Your task to perform on an android device: turn off translation in the chrome app Image 0: 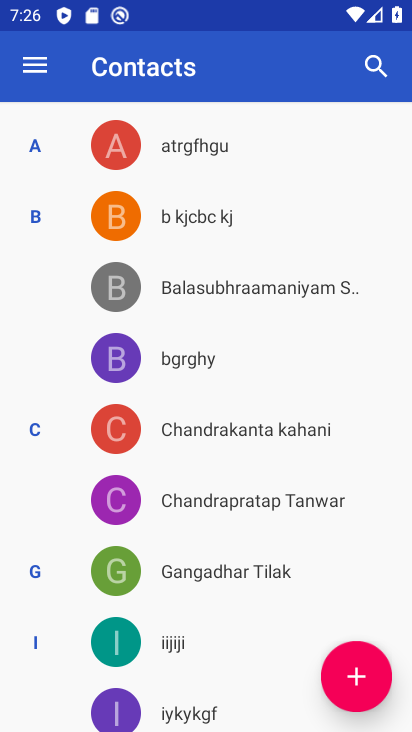
Step 0: press home button
Your task to perform on an android device: turn off translation in the chrome app Image 1: 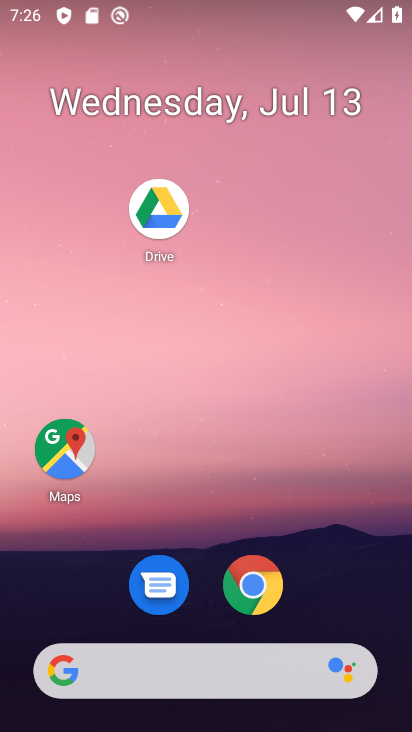
Step 1: click (266, 588)
Your task to perform on an android device: turn off translation in the chrome app Image 2: 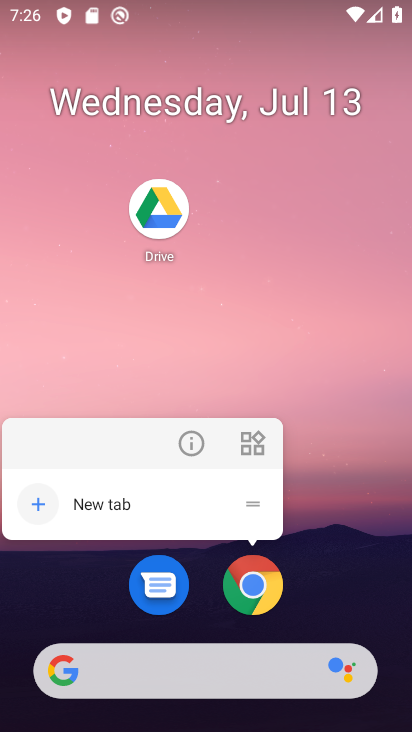
Step 2: click (246, 602)
Your task to perform on an android device: turn off translation in the chrome app Image 3: 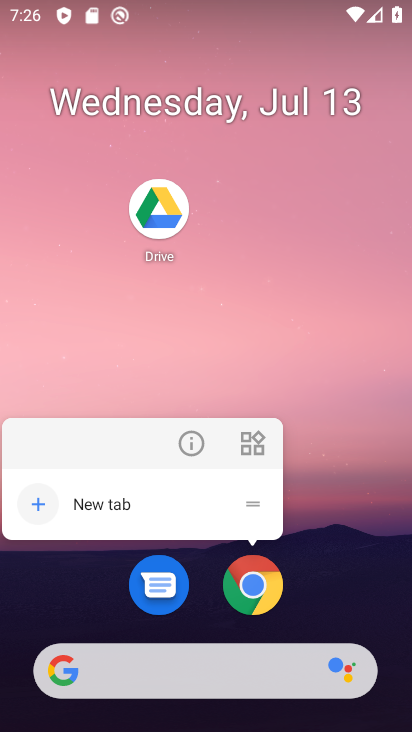
Step 3: click (254, 590)
Your task to perform on an android device: turn off translation in the chrome app Image 4: 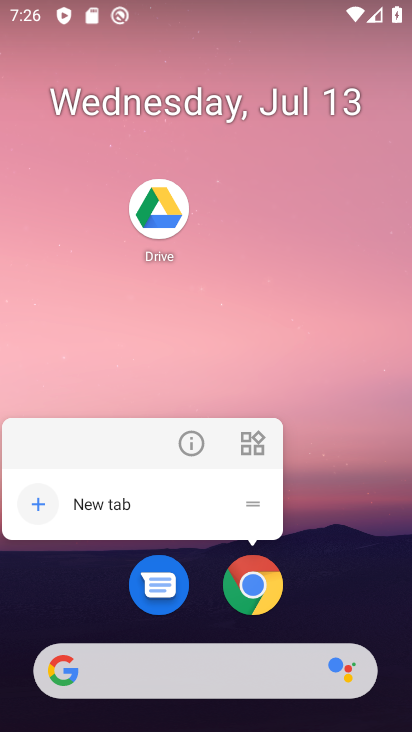
Step 4: click (254, 590)
Your task to perform on an android device: turn off translation in the chrome app Image 5: 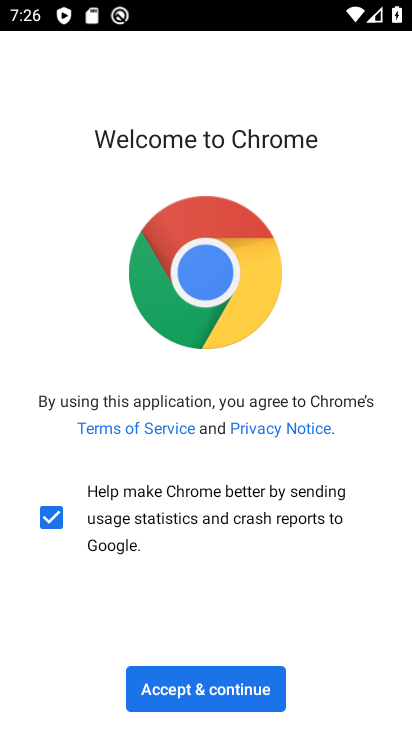
Step 5: click (199, 678)
Your task to perform on an android device: turn off translation in the chrome app Image 6: 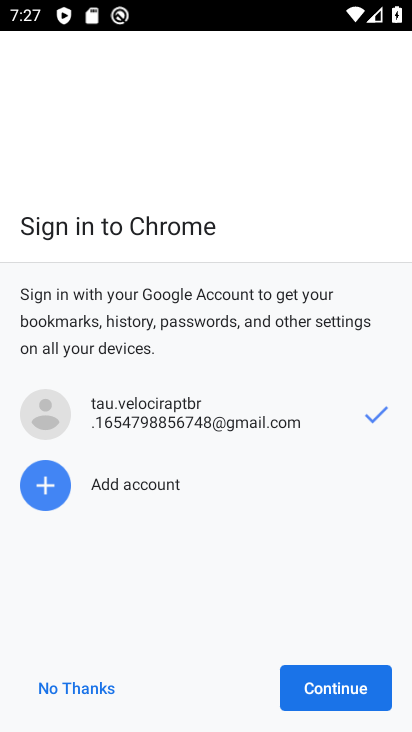
Step 6: click (317, 679)
Your task to perform on an android device: turn off translation in the chrome app Image 7: 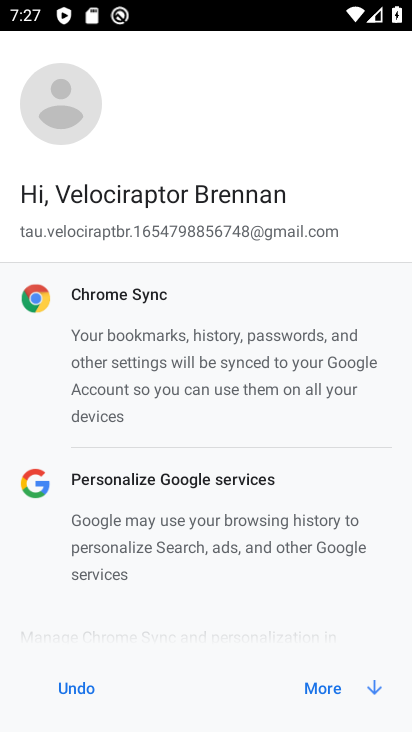
Step 7: click (335, 689)
Your task to perform on an android device: turn off translation in the chrome app Image 8: 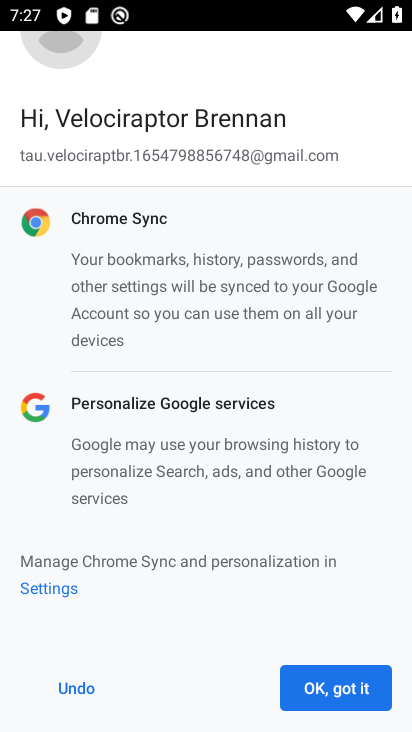
Step 8: click (335, 689)
Your task to perform on an android device: turn off translation in the chrome app Image 9: 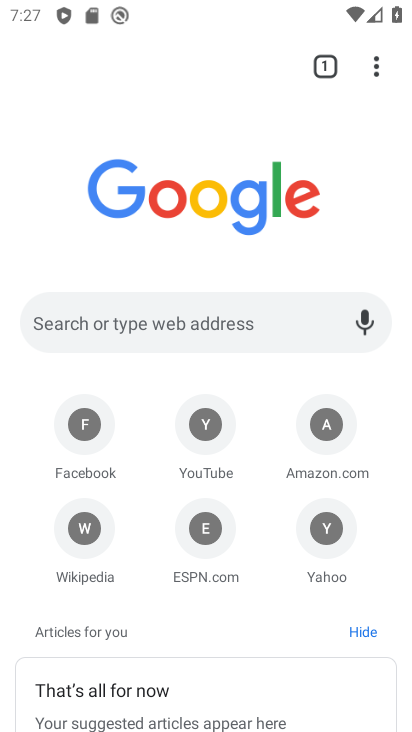
Step 9: drag from (377, 67) to (115, 551)
Your task to perform on an android device: turn off translation in the chrome app Image 10: 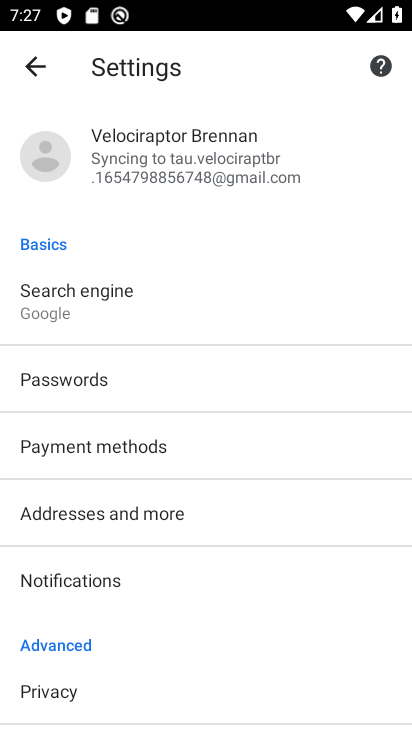
Step 10: drag from (108, 652) to (265, 118)
Your task to perform on an android device: turn off translation in the chrome app Image 11: 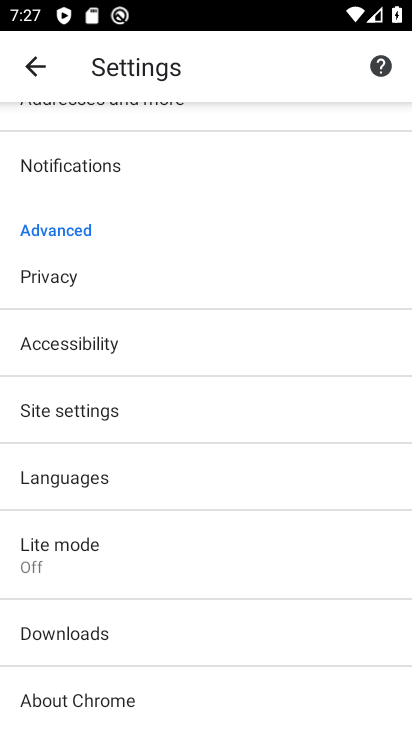
Step 11: click (121, 479)
Your task to perform on an android device: turn off translation in the chrome app Image 12: 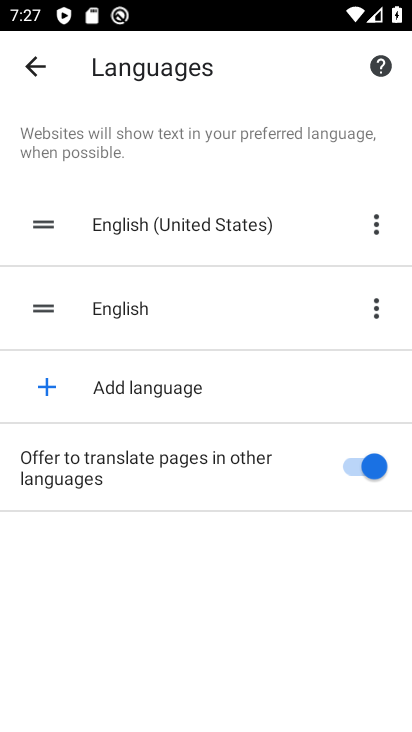
Step 12: click (351, 465)
Your task to perform on an android device: turn off translation in the chrome app Image 13: 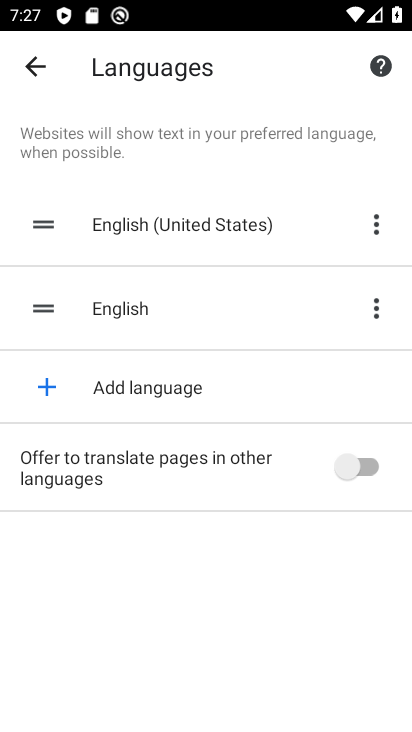
Step 13: task complete